Your task to perform on an android device: When is my next appointment? Image 0: 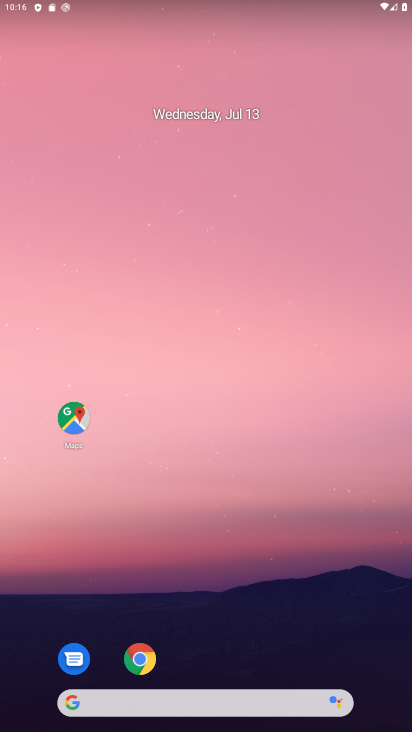
Step 0: drag from (320, 639) to (335, 128)
Your task to perform on an android device: When is my next appointment? Image 1: 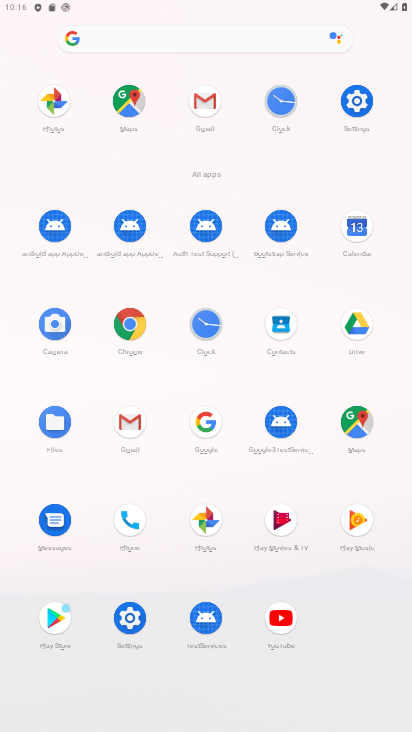
Step 1: click (361, 233)
Your task to perform on an android device: When is my next appointment? Image 2: 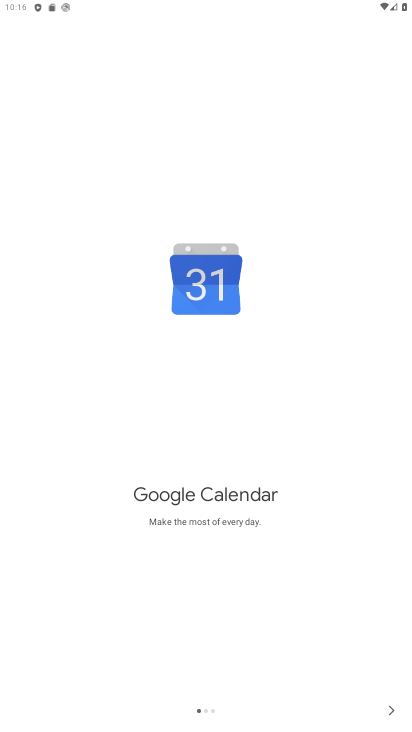
Step 2: click (389, 717)
Your task to perform on an android device: When is my next appointment? Image 3: 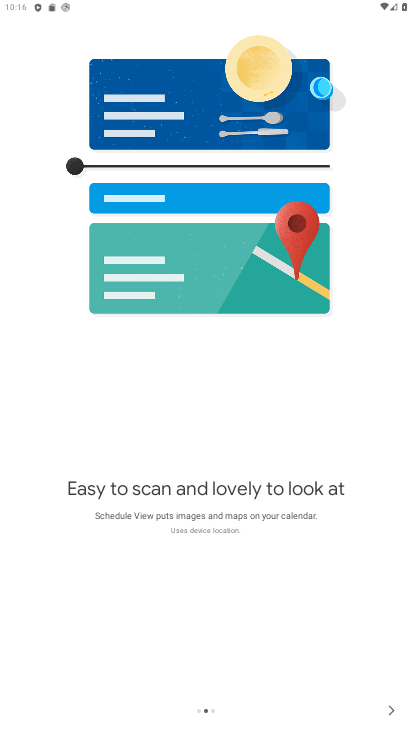
Step 3: click (390, 713)
Your task to perform on an android device: When is my next appointment? Image 4: 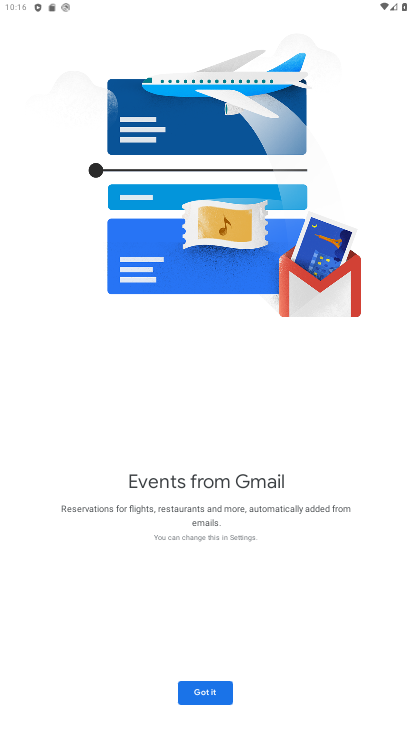
Step 4: click (224, 696)
Your task to perform on an android device: When is my next appointment? Image 5: 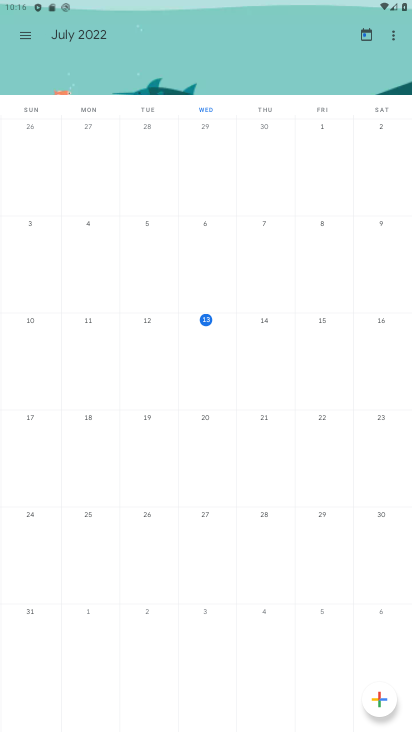
Step 5: click (19, 31)
Your task to perform on an android device: When is my next appointment? Image 6: 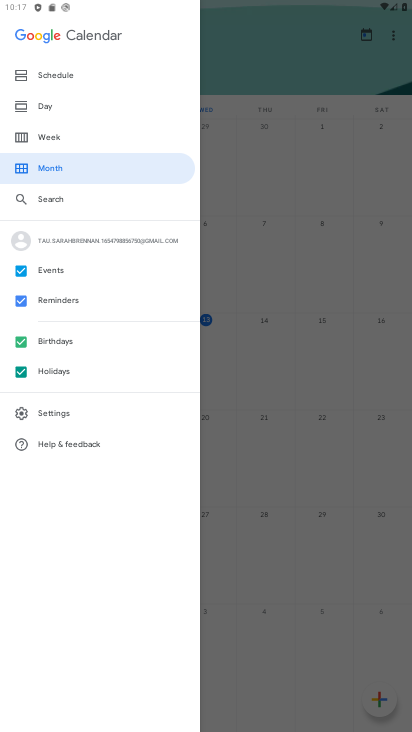
Step 6: click (60, 139)
Your task to perform on an android device: When is my next appointment? Image 7: 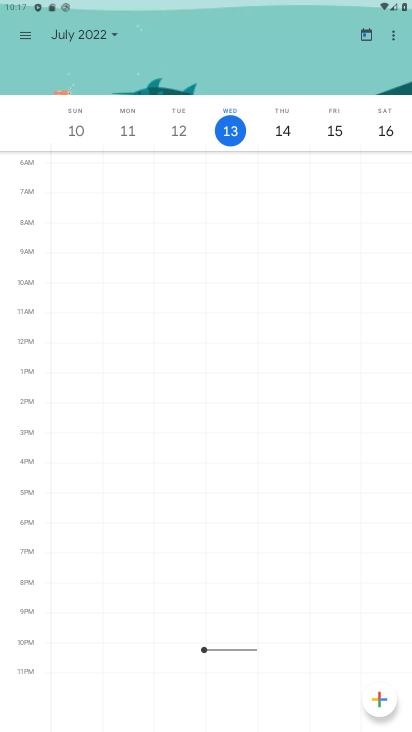
Step 7: task complete